Your task to perform on an android device: set the stopwatch Image 0: 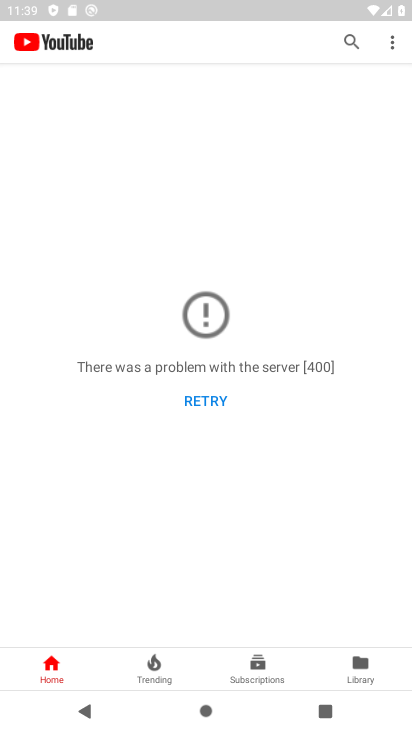
Step 0: press home button
Your task to perform on an android device: set the stopwatch Image 1: 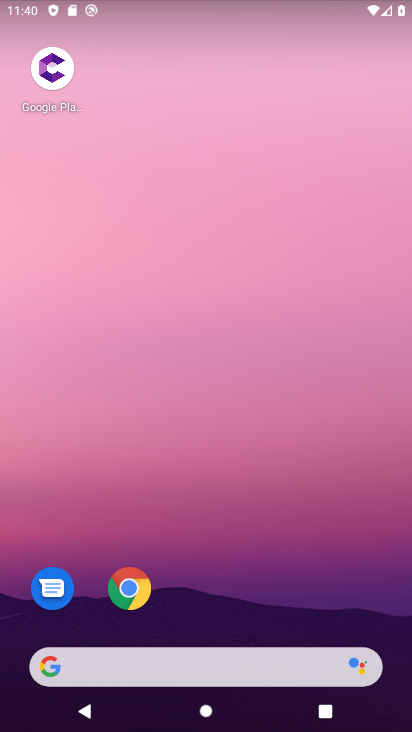
Step 1: drag from (201, 345) to (259, 28)
Your task to perform on an android device: set the stopwatch Image 2: 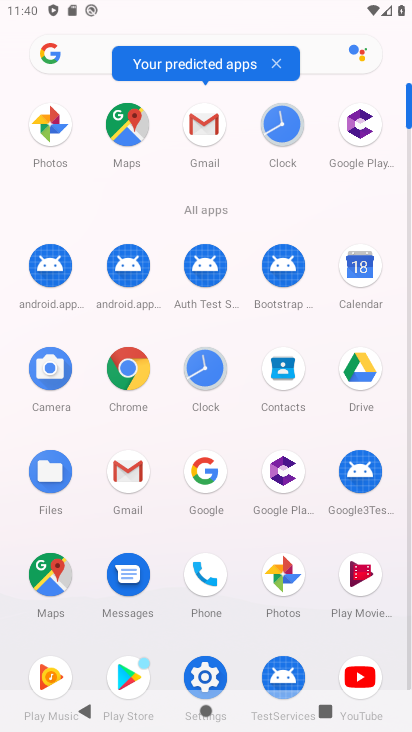
Step 2: click (283, 125)
Your task to perform on an android device: set the stopwatch Image 3: 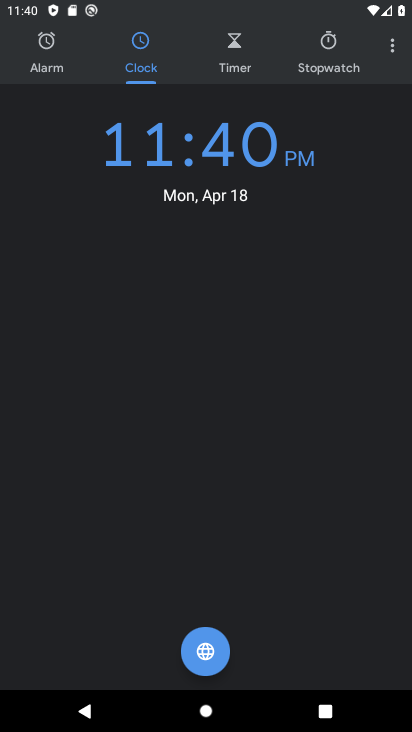
Step 3: click (318, 60)
Your task to perform on an android device: set the stopwatch Image 4: 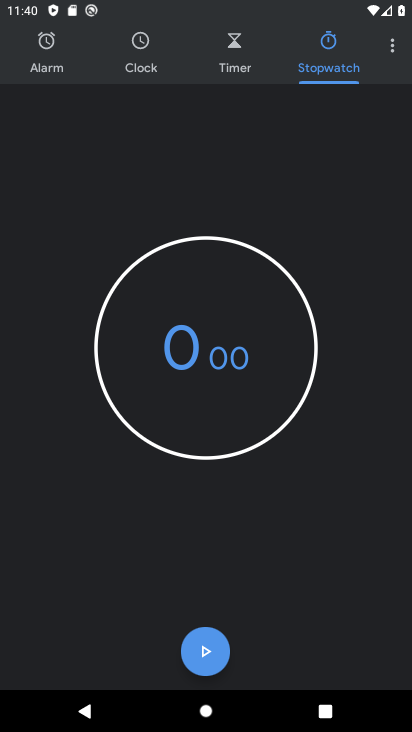
Step 4: click (208, 644)
Your task to perform on an android device: set the stopwatch Image 5: 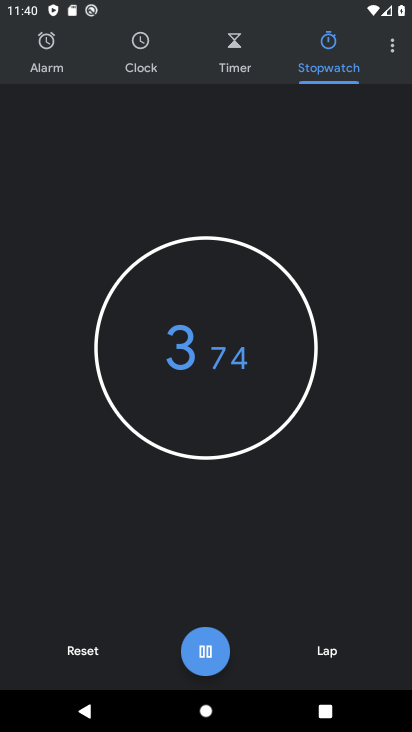
Step 5: task complete